Your task to perform on an android device: turn on location history Image 0: 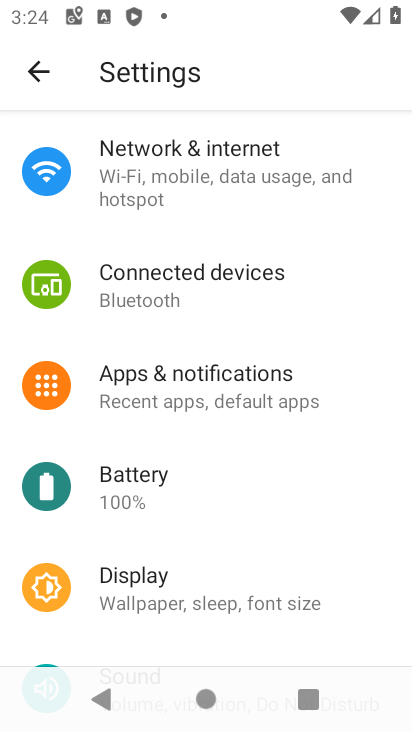
Step 0: press home button
Your task to perform on an android device: turn on location history Image 1: 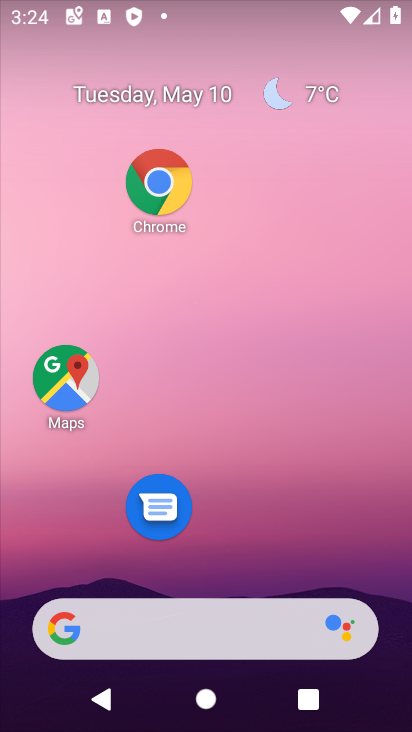
Step 1: drag from (254, 575) to (239, 91)
Your task to perform on an android device: turn on location history Image 2: 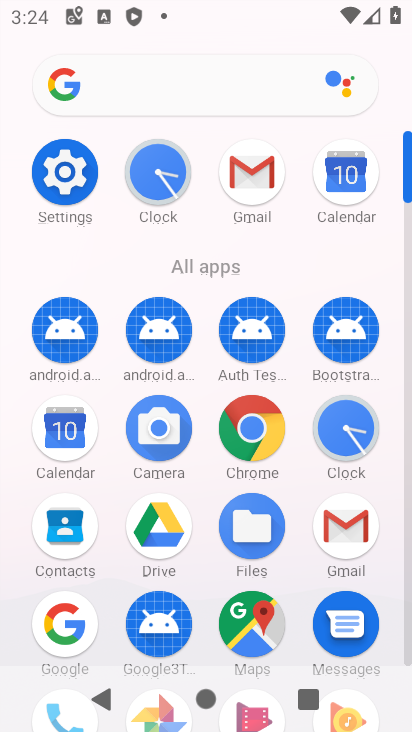
Step 2: click (65, 177)
Your task to perform on an android device: turn on location history Image 3: 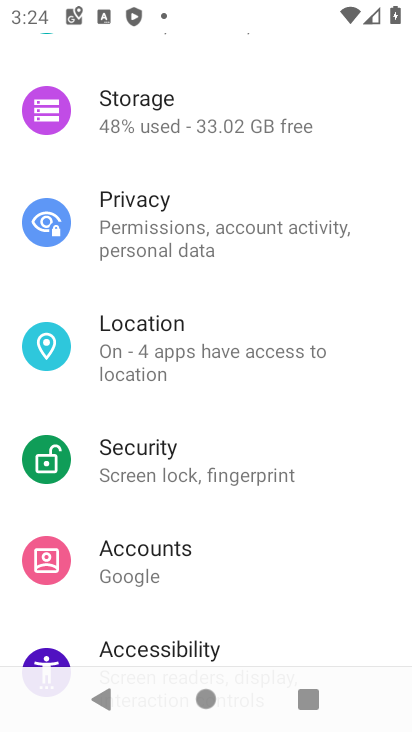
Step 3: click (151, 346)
Your task to perform on an android device: turn on location history Image 4: 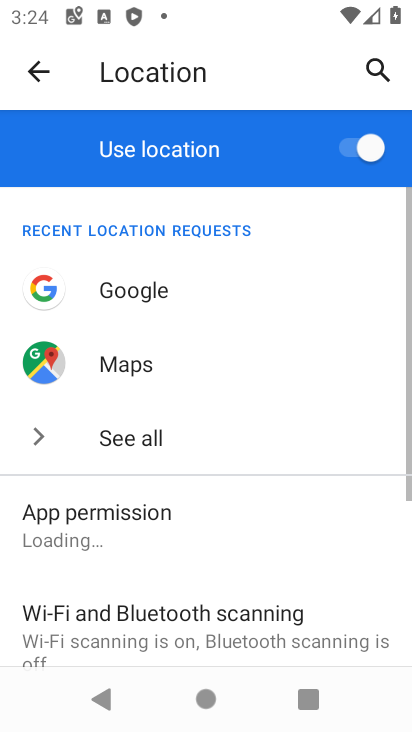
Step 4: drag from (232, 552) to (180, 142)
Your task to perform on an android device: turn on location history Image 5: 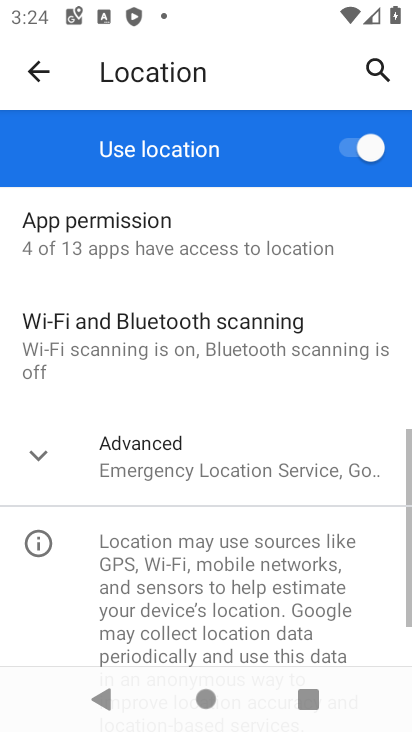
Step 5: click (203, 435)
Your task to perform on an android device: turn on location history Image 6: 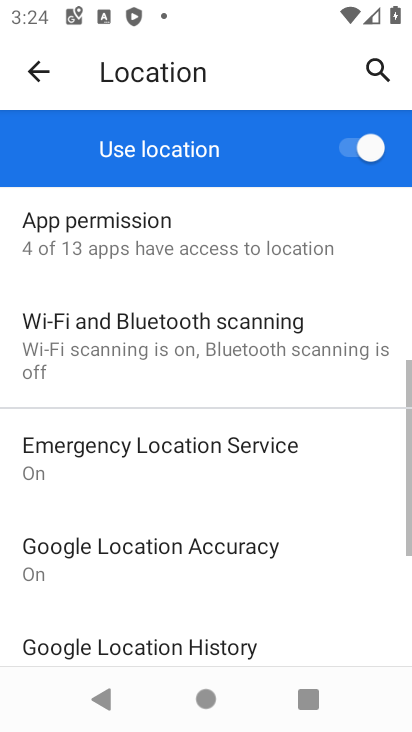
Step 6: drag from (201, 543) to (180, 291)
Your task to perform on an android device: turn on location history Image 7: 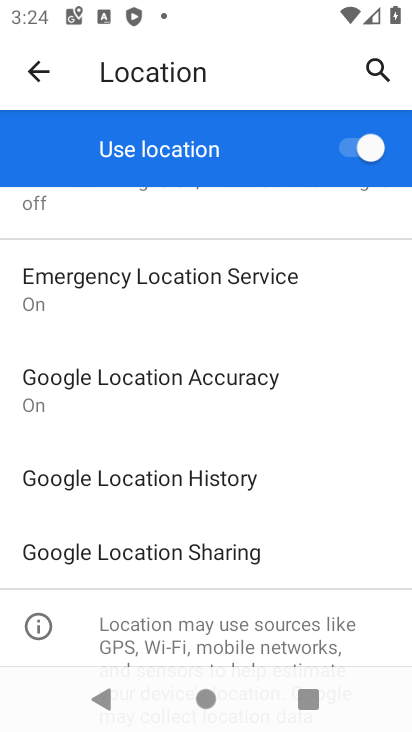
Step 7: click (154, 468)
Your task to perform on an android device: turn on location history Image 8: 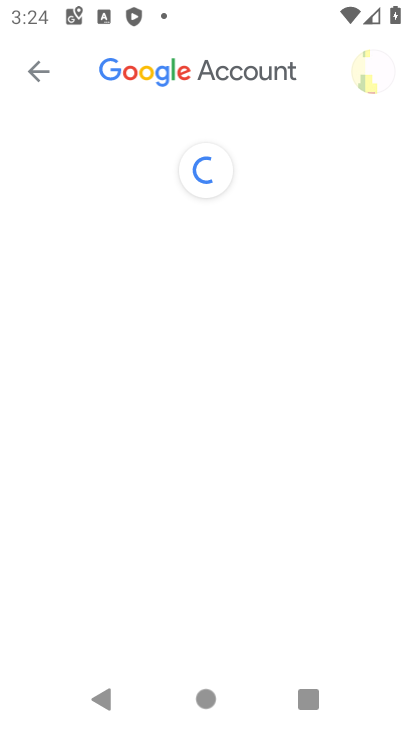
Step 8: task complete